Your task to perform on an android device: toggle javascript in the chrome app Image 0: 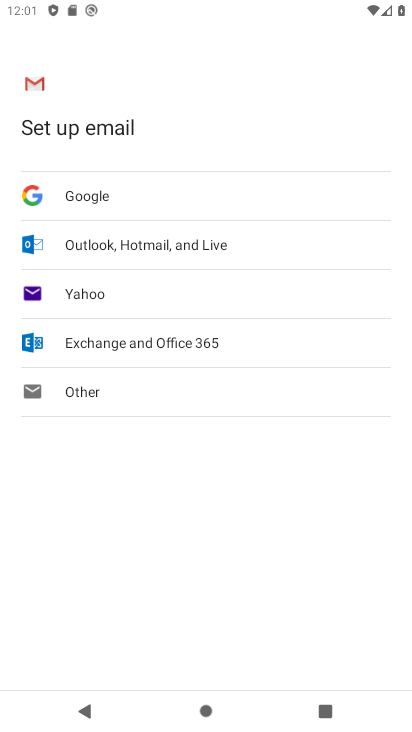
Step 0: task complete